Your task to perform on an android device: set default search engine in the chrome app Image 0: 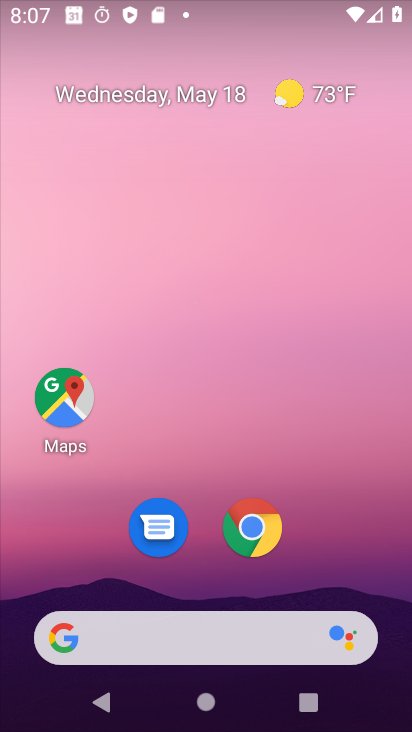
Step 0: click (256, 539)
Your task to perform on an android device: set default search engine in the chrome app Image 1: 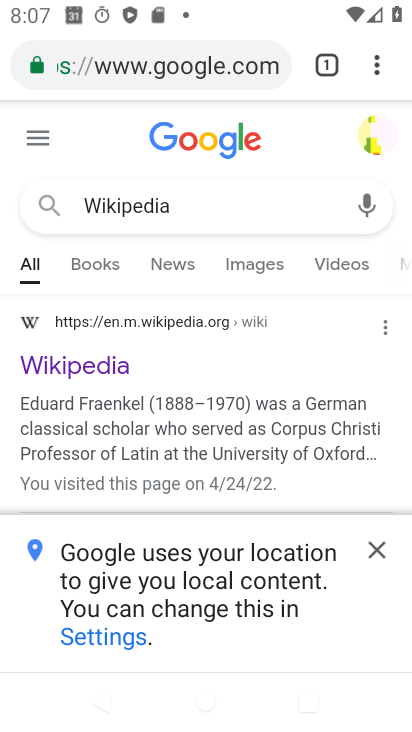
Step 1: click (372, 58)
Your task to perform on an android device: set default search engine in the chrome app Image 2: 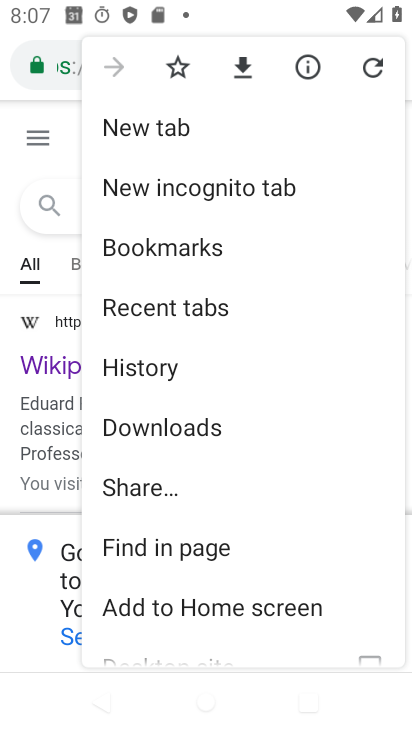
Step 2: drag from (309, 571) to (332, 341)
Your task to perform on an android device: set default search engine in the chrome app Image 3: 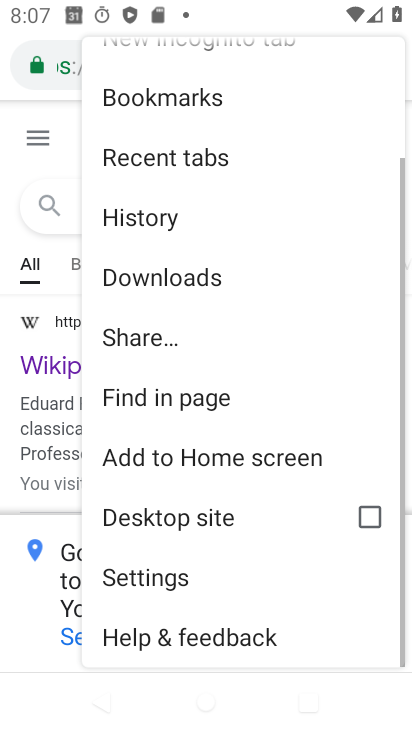
Step 3: click (133, 578)
Your task to perform on an android device: set default search engine in the chrome app Image 4: 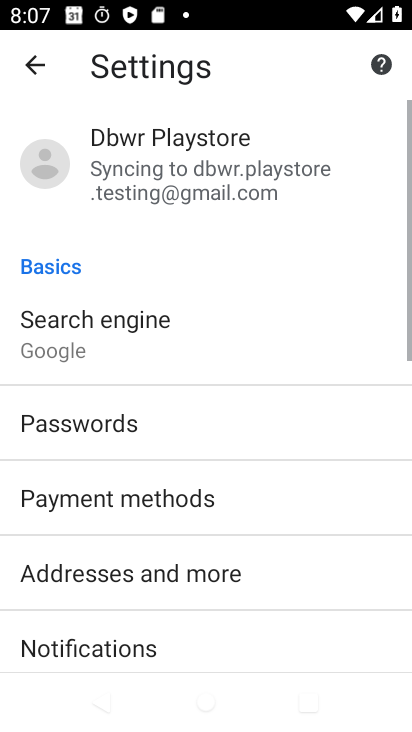
Step 4: click (94, 327)
Your task to perform on an android device: set default search engine in the chrome app Image 5: 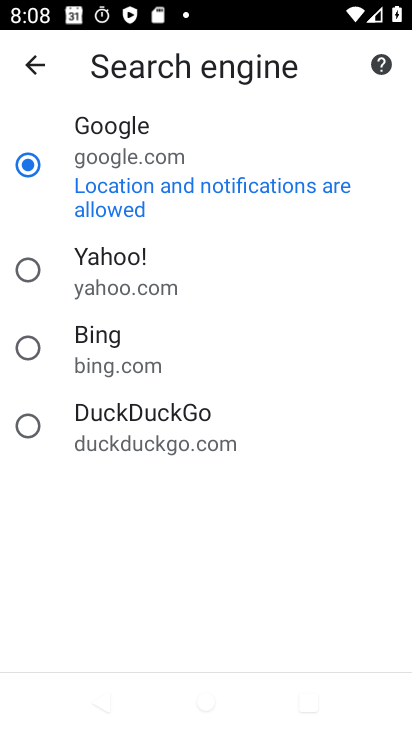
Step 5: task complete